Your task to perform on an android device: turn off picture-in-picture Image 0: 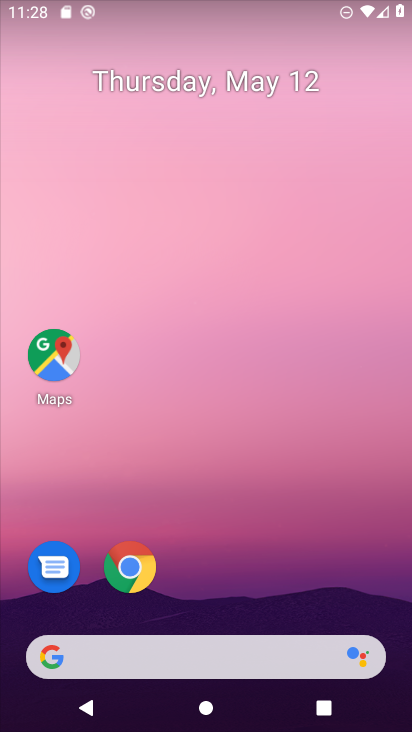
Step 0: drag from (282, 621) to (284, 146)
Your task to perform on an android device: turn off picture-in-picture Image 1: 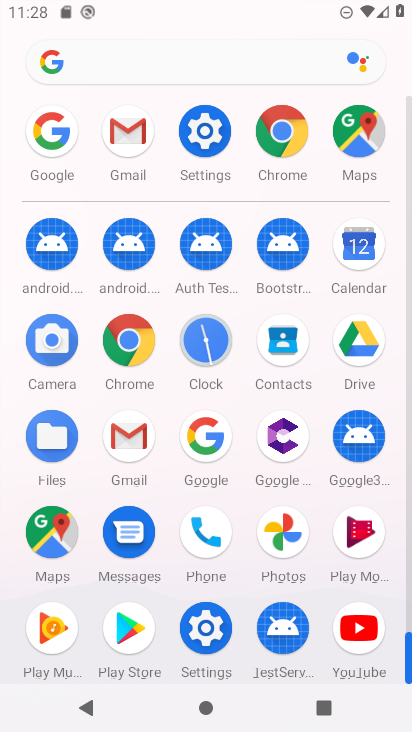
Step 1: click (199, 149)
Your task to perform on an android device: turn off picture-in-picture Image 2: 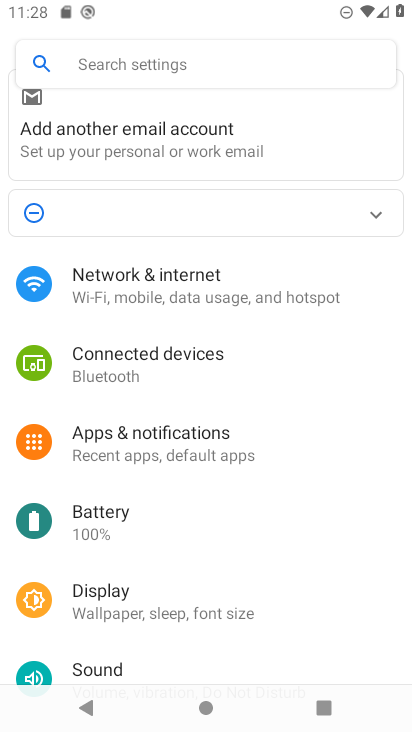
Step 2: click (205, 445)
Your task to perform on an android device: turn off picture-in-picture Image 3: 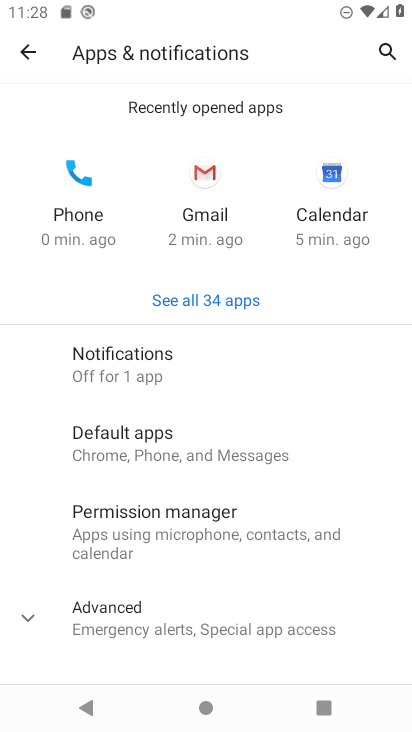
Step 3: drag from (174, 534) to (196, 281)
Your task to perform on an android device: turn off picture-in-picture Image 4: 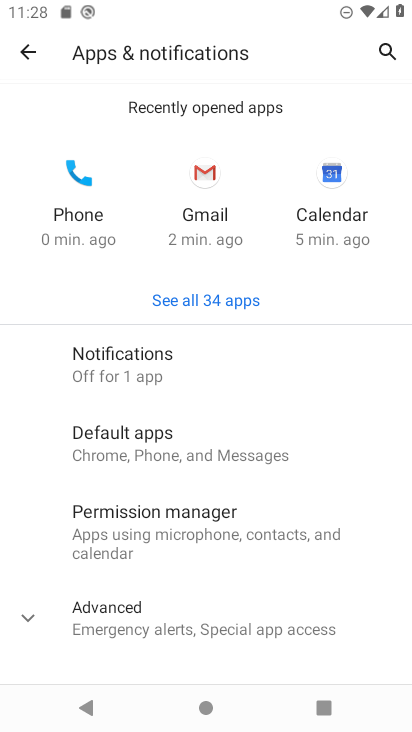
Step 4: click (179, 615)
Your task to perform on an android device: turn off picture-in-picture Image 5: 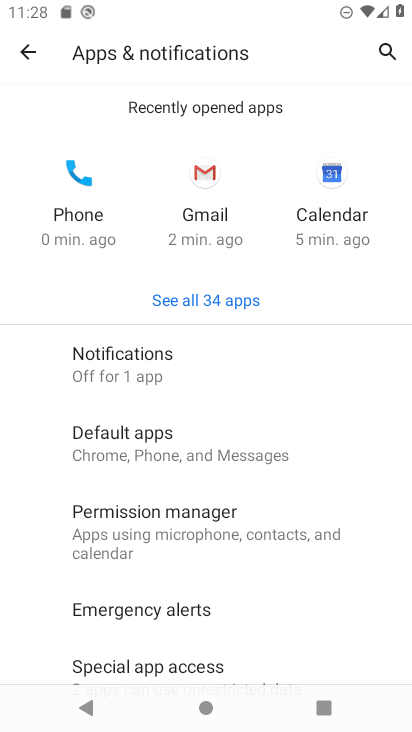
Step 5: drag from (189, 626) to (259, 292)
Your task to perform on an android device: turn off picture-in-picture Image 6: 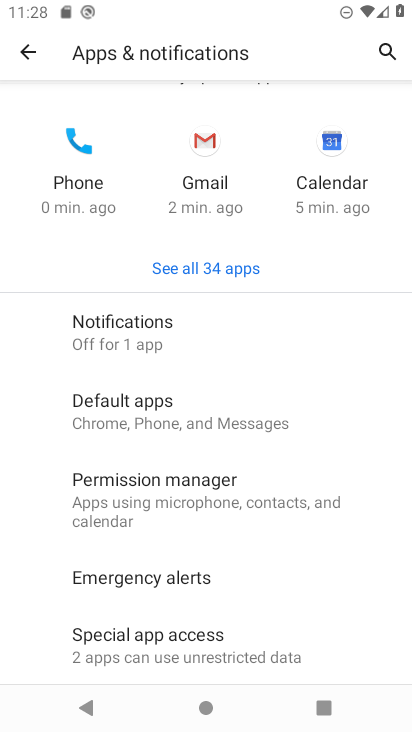
Step 6: click (193, 652)
Your task to perform on an android device: turn off picture-in-picture Image 7: 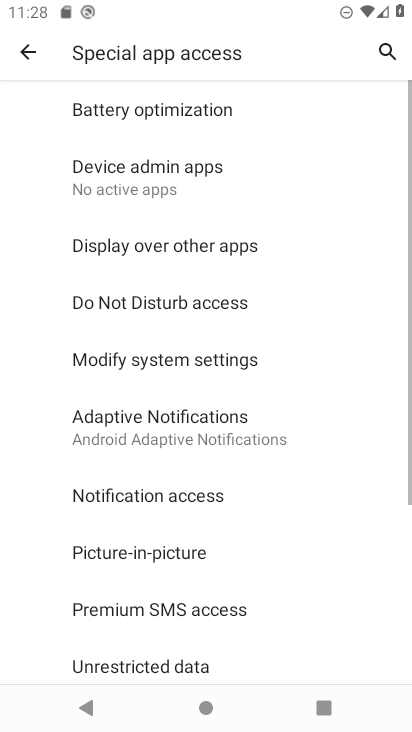
Step 7: drag from (203, 611) to (264, 343)
Your task to perform on an android device: turn off picture-in-picture Image 8: 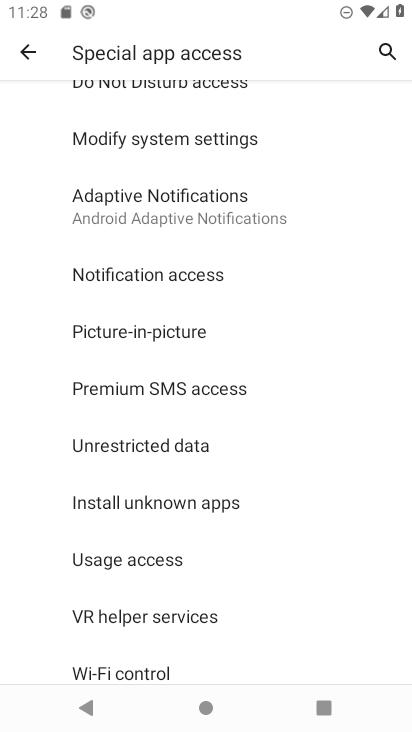
Step 8: click (193, 328)
Your task to perform on an android device: turn off picture-in-picture Image 9: 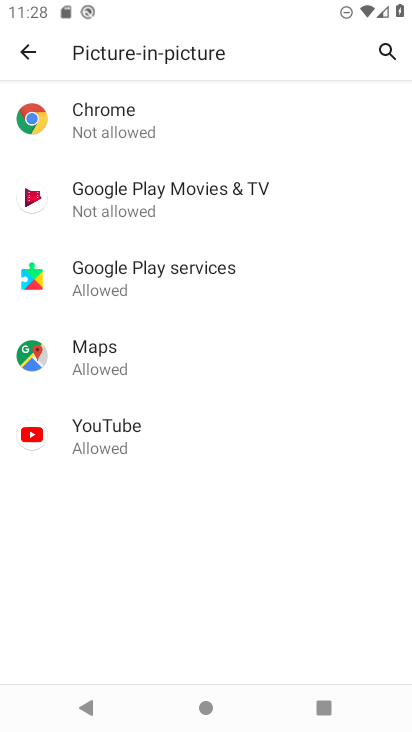
Step 9: click (184, 128)
Your task to perform on an android device: turn off picture-in-picture Image 10: 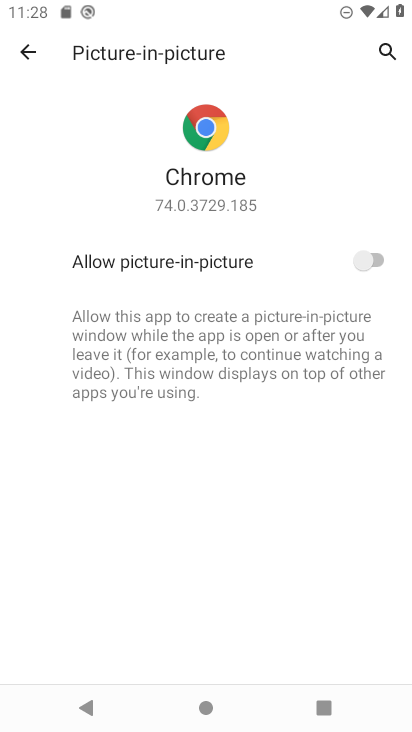
Step 10: task complete